Your task to perform on an android device: find snoozed emails in the gmail app Image 0: 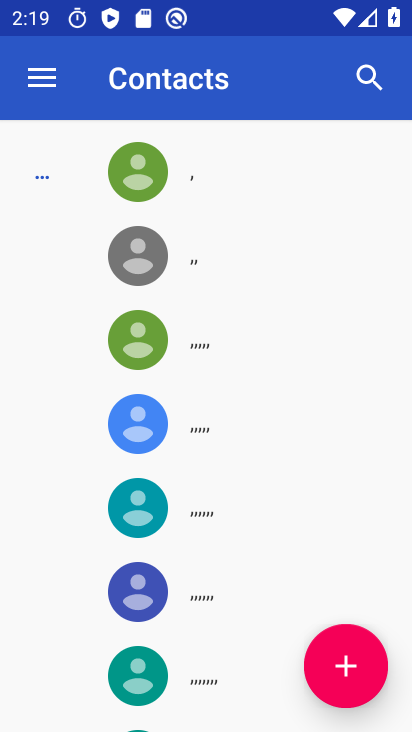
Step 0: press home button
Your task to perform on an android device: find snoozed emails in the gmail app Image 1: 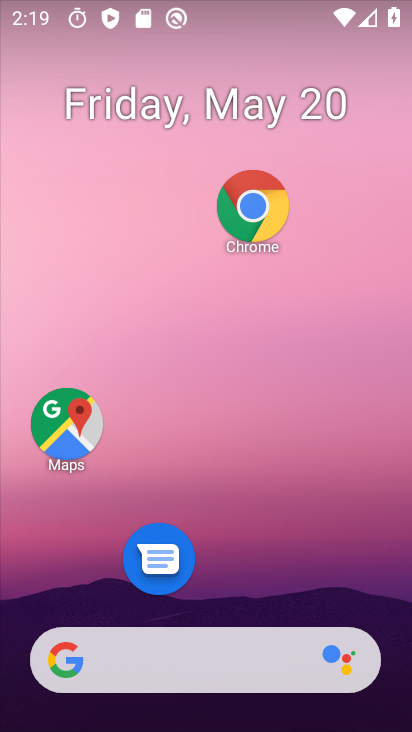
Step 1: drag from (215, 623) to (185, 14)
Your task to perform on an android device: find snoozed emails in the gmail app Image 2: 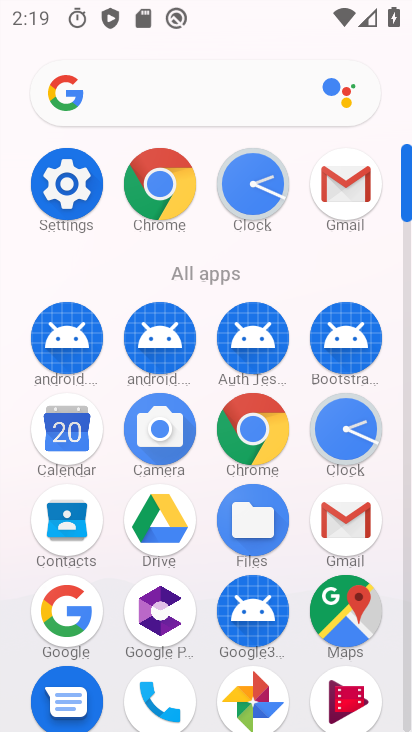
Step 2: click (349, 546)
Your task to perform on an android device: find snoozed emails in the gmail app Image 3: 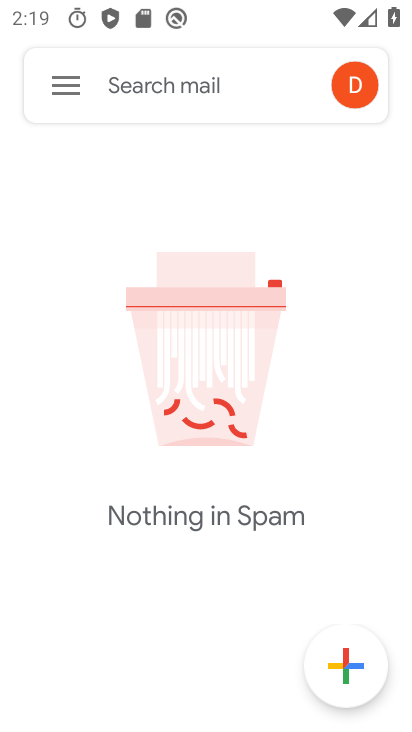
Step 3: click (62, 71)
Your task to perform on an android device: find snoozed emails in the gmail app Image 4: 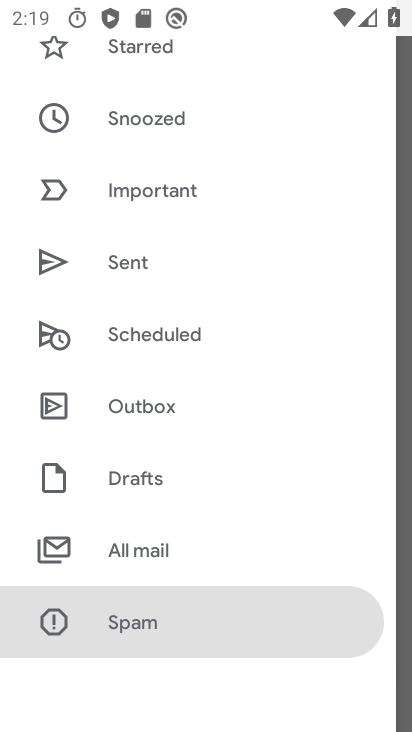
Step 4: click (125, 109)
Your task to perform on an android device: find snoozed emails in the gmail app Image 5: 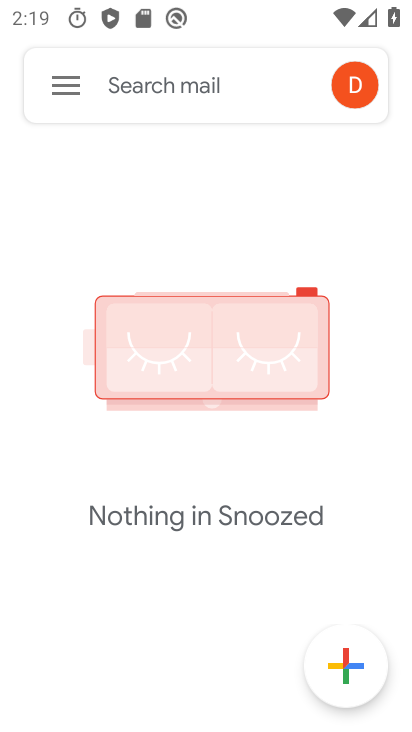
Step 5: task complete